Your task to perform on an android device: set default search engine in the chrome app Image 0: 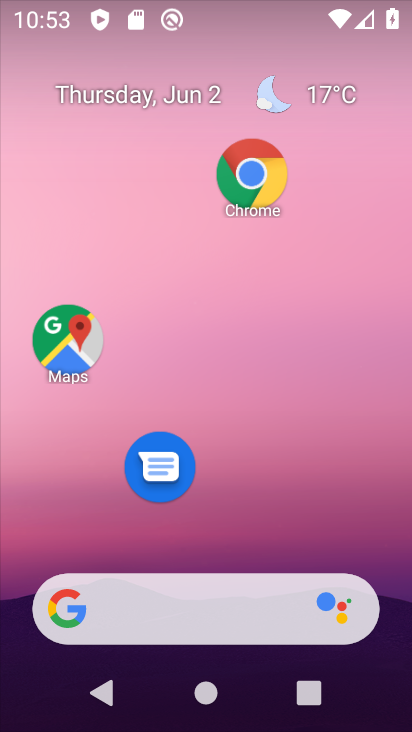
Step 0: press home button
Your task to perform on an android device: set default search engine in the chrome app Image 1: 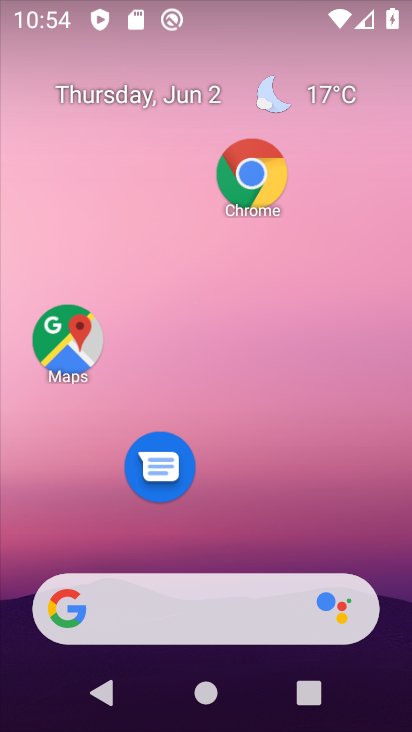
Step 1: click (247, 168)
Your task to perform on an android device: set default search engine in the chrome app Image 2: 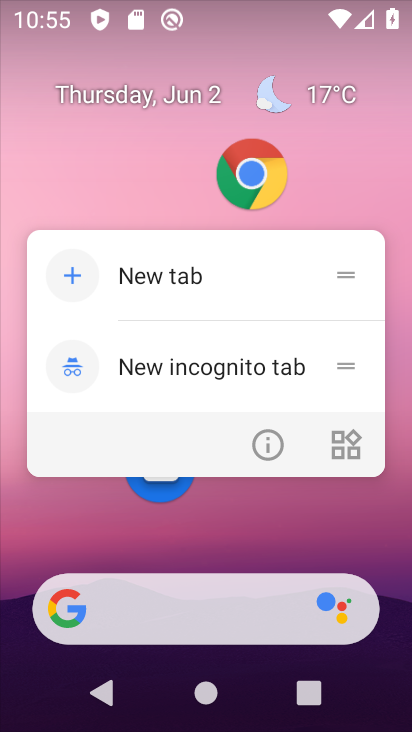
Step 2: click (264, 166)
Your task to perform on an android device: set default search engine in the chrome app Image 3: 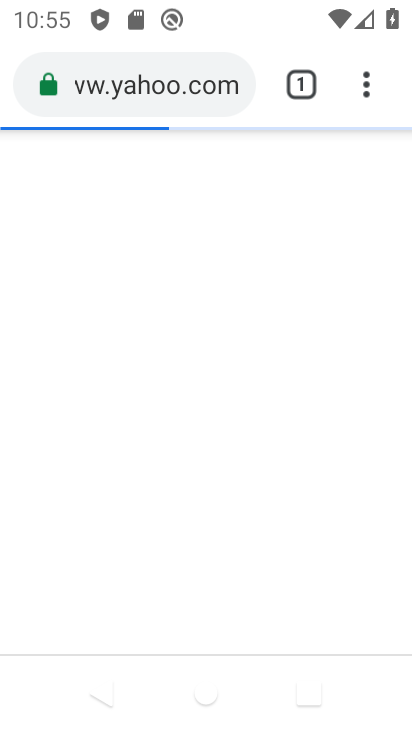
Step 3: drag from (359, 82) to (167, 525)
Your task to perform on an android device: set default search engine in the chrome app Image 4: 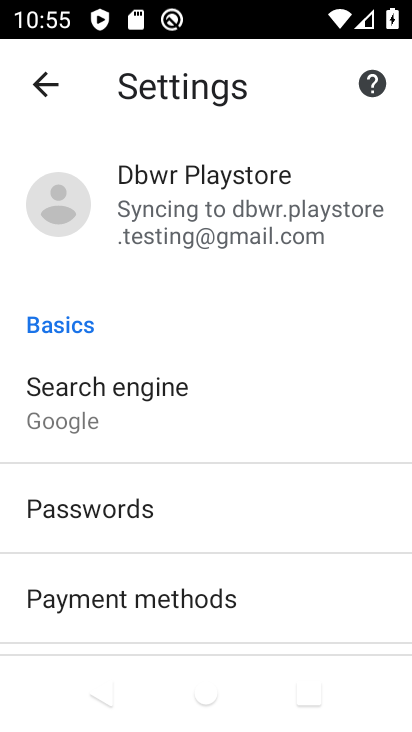
Step 4: click (92, 394)
Your task to perform on an android device: set default search engine in the chrome app Image 5: 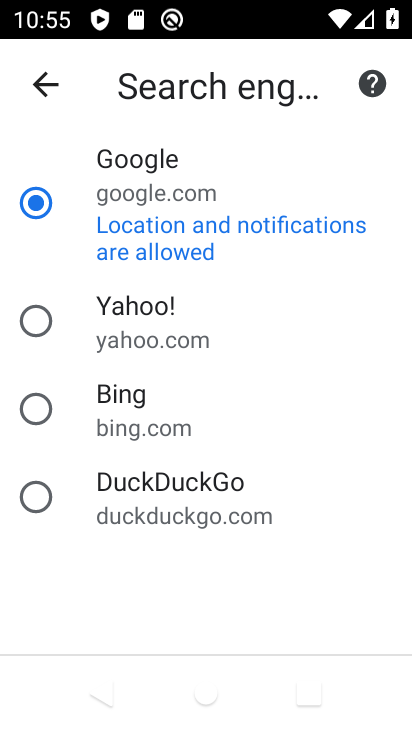
Step 5: click (35, 317)
Your task to perform on an android device: set default search engine in the chrome app Image 6: 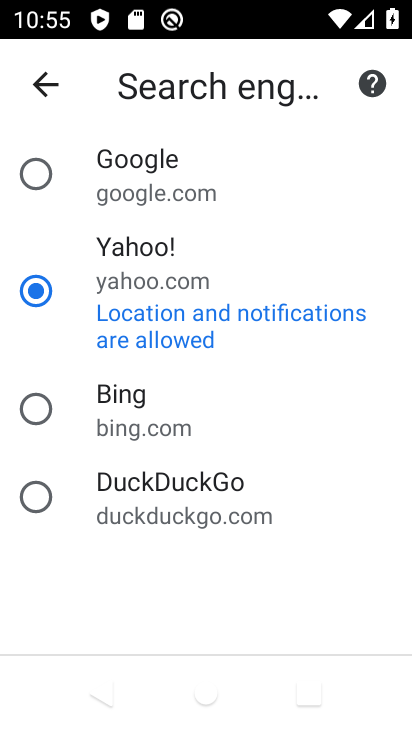
Step 6: task complete